Your task to perform on an android device: Find coffee shops on Maps Image 0: 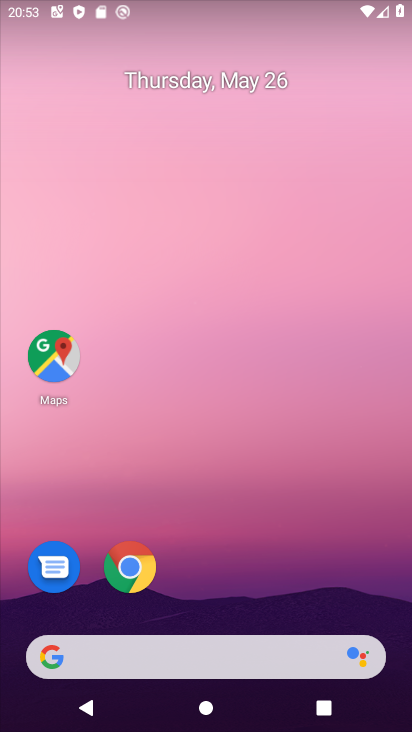
Step 0: click (53, 343)
Your task to perform on an android device: Find coffee shops on Maps Image 1: 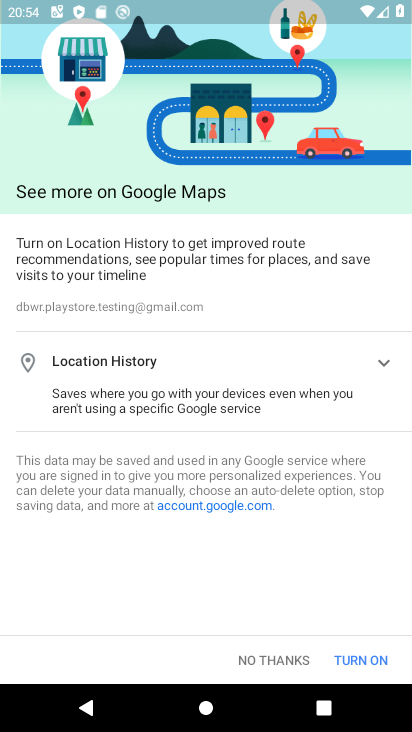
Step 1: click (369, 666)
Your task to perform on an android device: Find coffee shops on Maps Image 2: 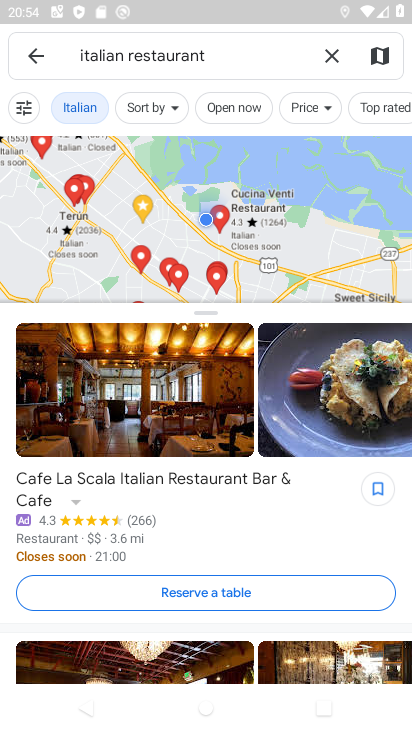
Step 2: click (337, 52)
Your task to perform on an android device: Find coffee shops on Maps Image 3: 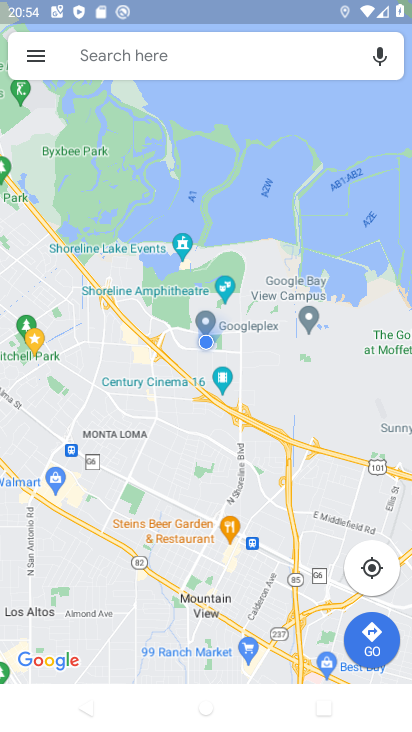
Step 3: click (167, 56)
Your task to perform on an android device: Find coffee shops on Maps Image 4: 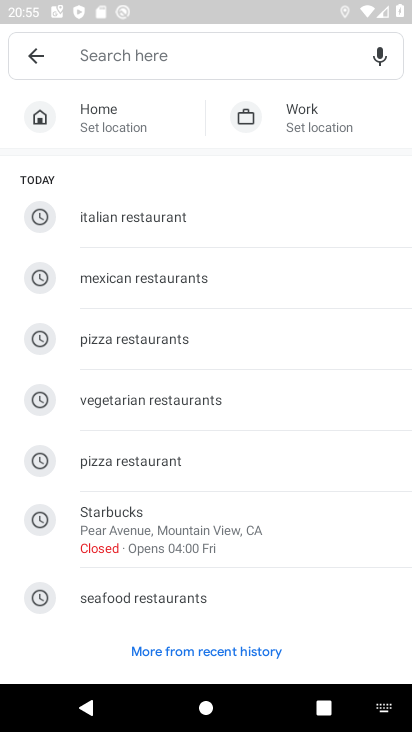
Step 4: type "coffee shops"
Your task to perform on an android device: Find coffee shops on Maps Image 5: 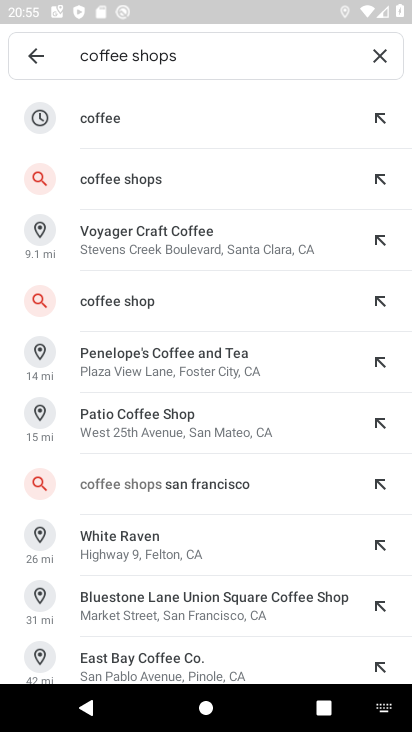
Step 5: click (160, 183)
Your task to perform on an android device: Find coffee shops on Maps Image 6: 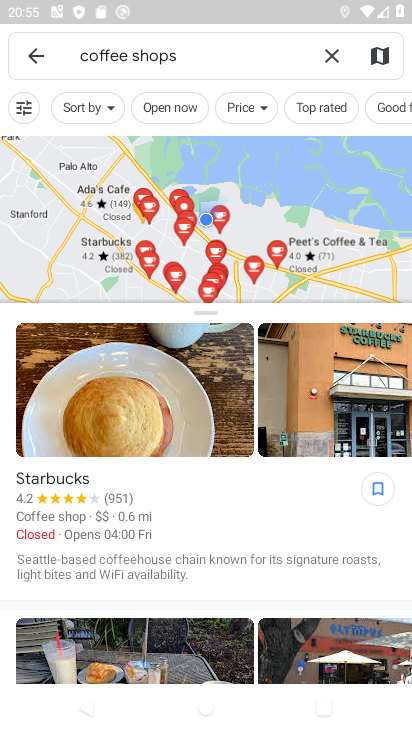
Step 6: task complete